Your task to perform on an android device: Do I have any events tomorrow? Image 0: 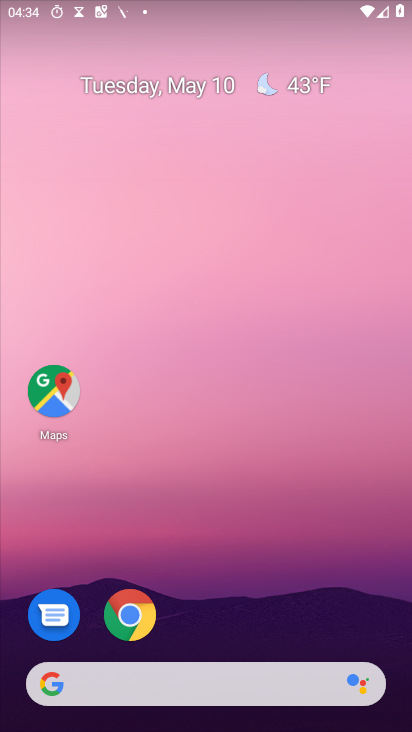
Step 0: drag from (316, 680) to (403, 288)
Your task to perform on an android device: Do I have any events tomorrow? Image 1: 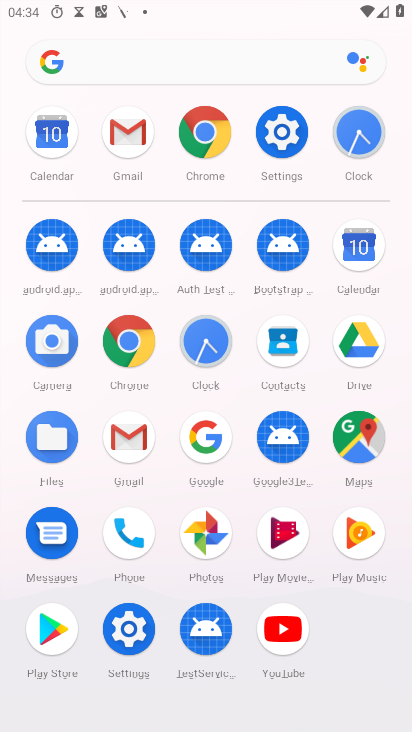
Step 1: click (360, 247)
Your task to perform on an android device: Do I have any events tomorrow? Image 2: 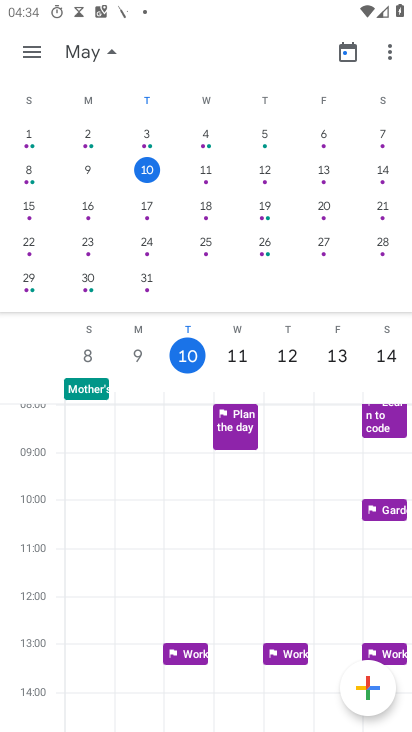
Step 2: click (202, 166)
Your task to perform on an android device: Do I have any events tomorrow? Image 3: 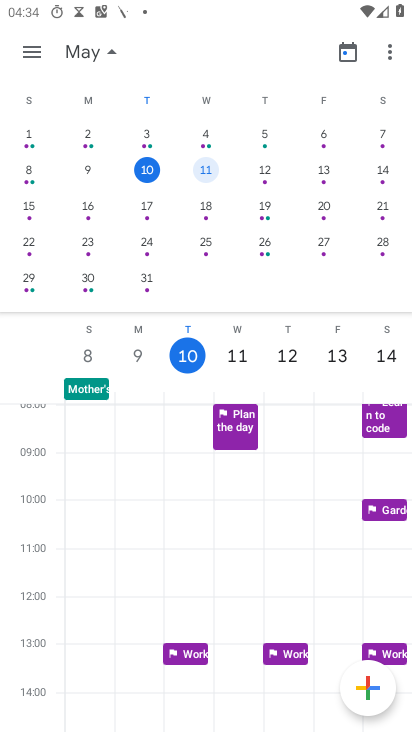
Step 3: click (202, 166)
Your task to perform on an android device: Do I have any events tomorrow? Image 4: 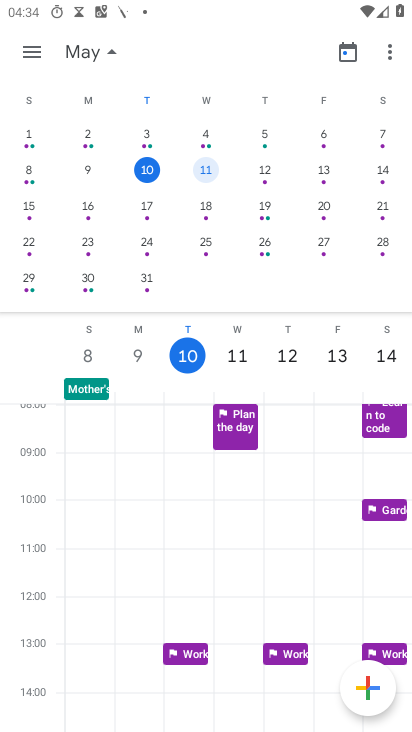
Step 4: click (201, 173)
Your task to perform on an android device: Do I have any events tomorrow? Image 5: 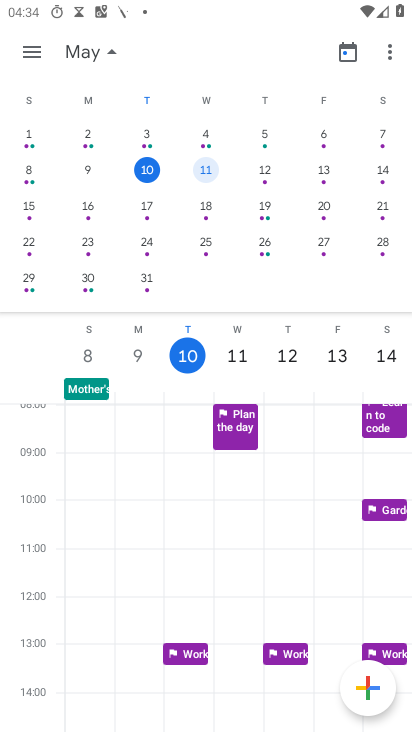
Step 5: click (235, 349)
Your task to perform on an android device: Do I have any events tomorrow? Image 6: 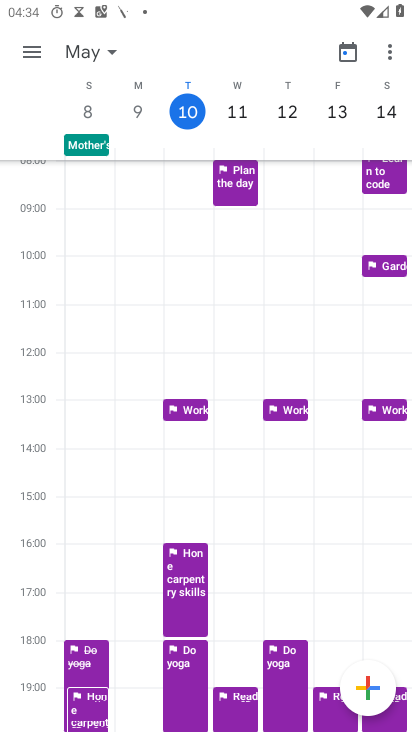
Step 6: click (234, 111)
Your task to perform on an android device: Do I have any events tomorrow? Image 7: 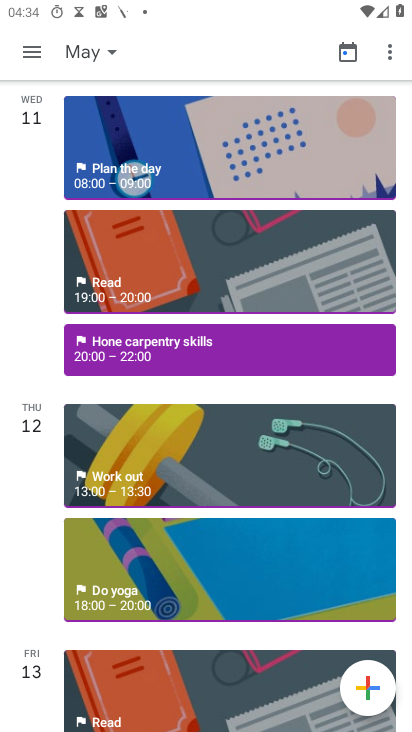
Step 7: task complete